Your task to perform on an android device: Open Wikipedia Image 0: 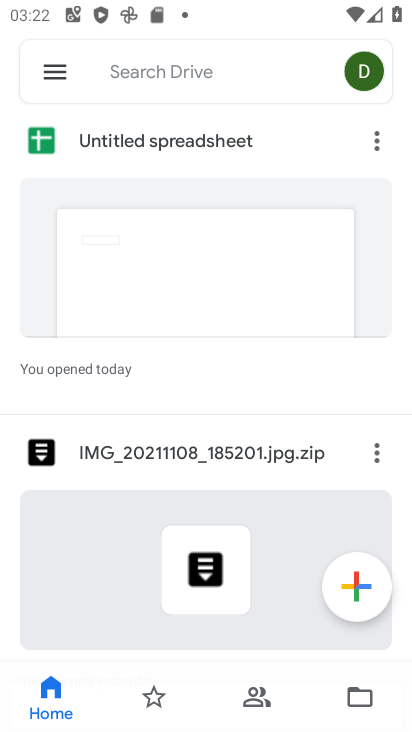
Step 0: press home button
Your task to perform on an android device: Open Wikipedia Image 1: 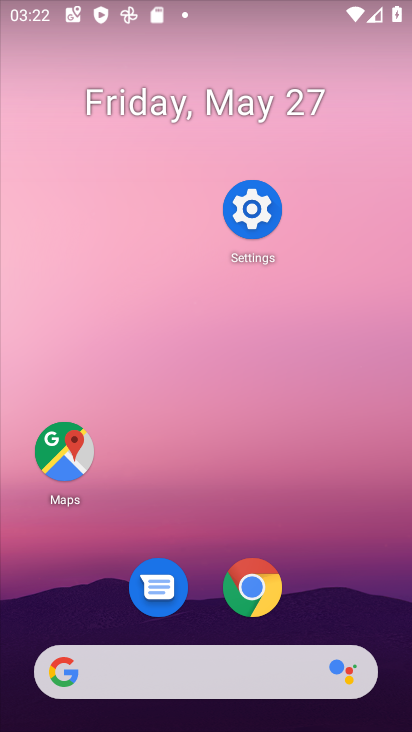
Step 1: click (181, 681)
Your task to perform on an android device: Open Wikipedia Image 2: 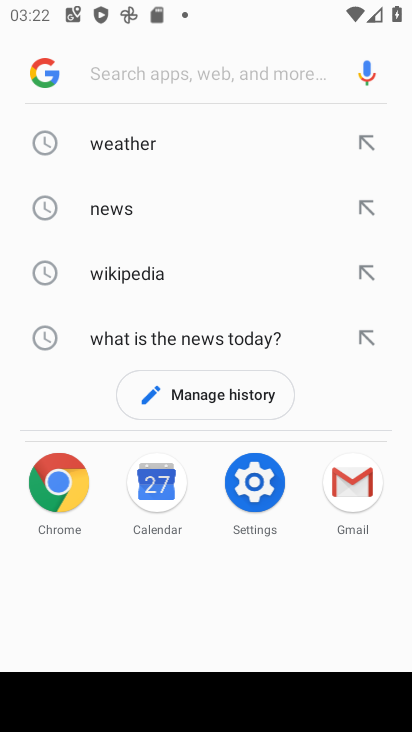
Step 2: click (197, 270)
Your task to perform on an android device: Open Wikipedia Image 3: 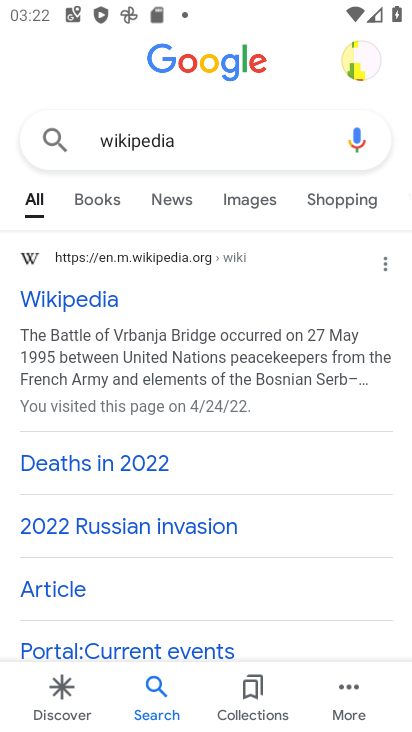
Step 3: click (53, 298)
Your task to perform on an android device: Open Wikipedia Image 4: 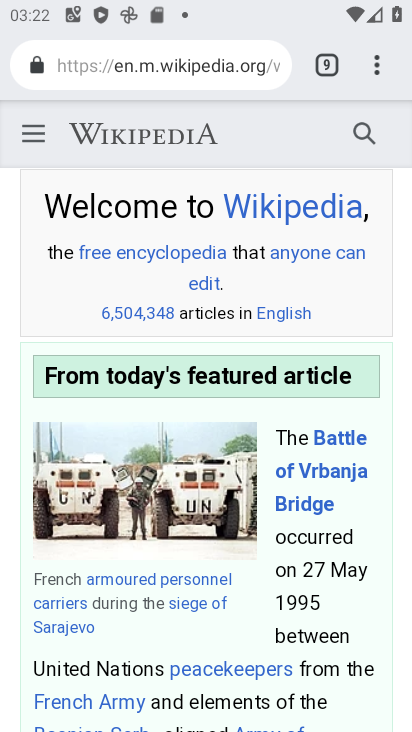
Step 4: task complete